Your task to perform on an android device: Clear the shopping cart on amazon. Search for usb-c on amazon, select the first entry, add it to the cart, then select checkout. Image 0: 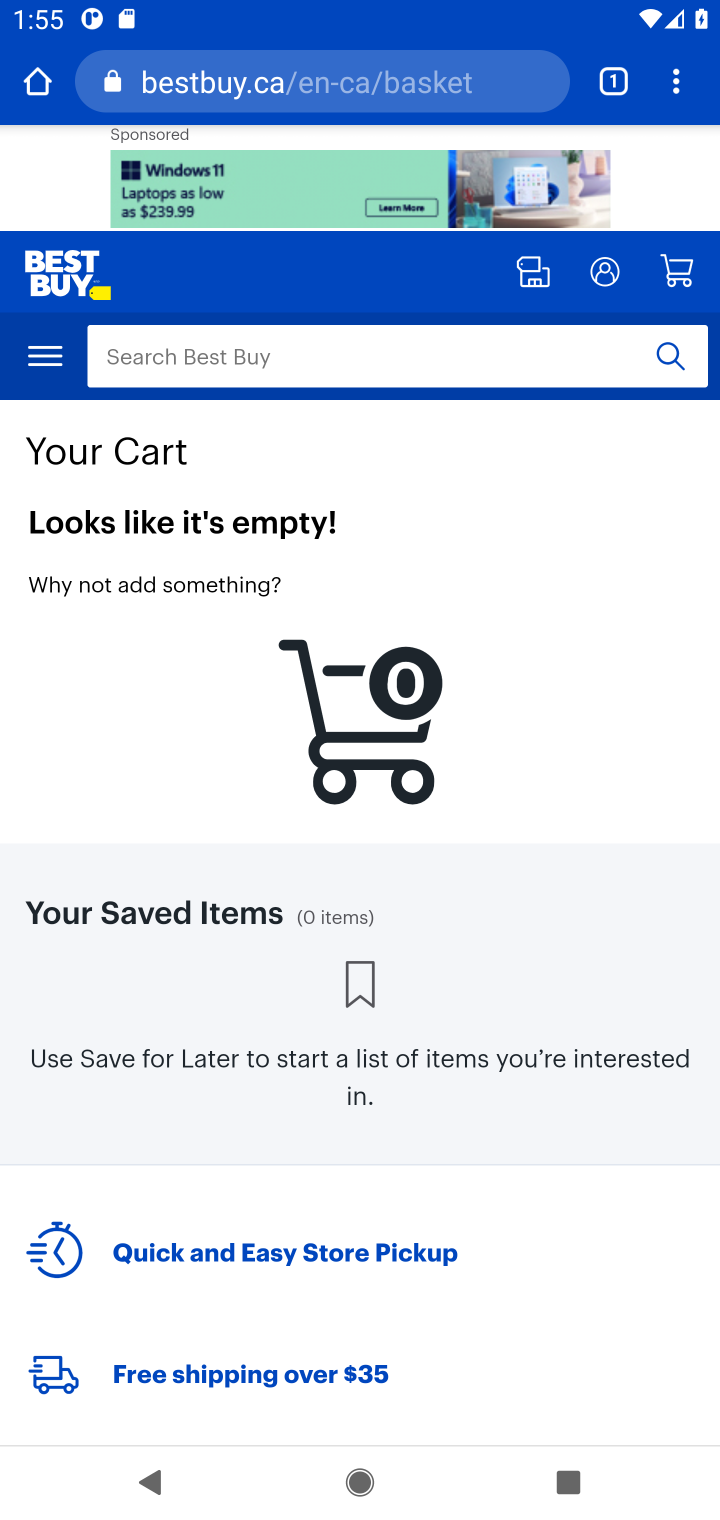
Step 0: press home button
Your task to perform on an android device: Clear the shopping cart on amazon. Search for usb-c on amazon, select the first entry, add it to the cart, then select checkout. Image 1: 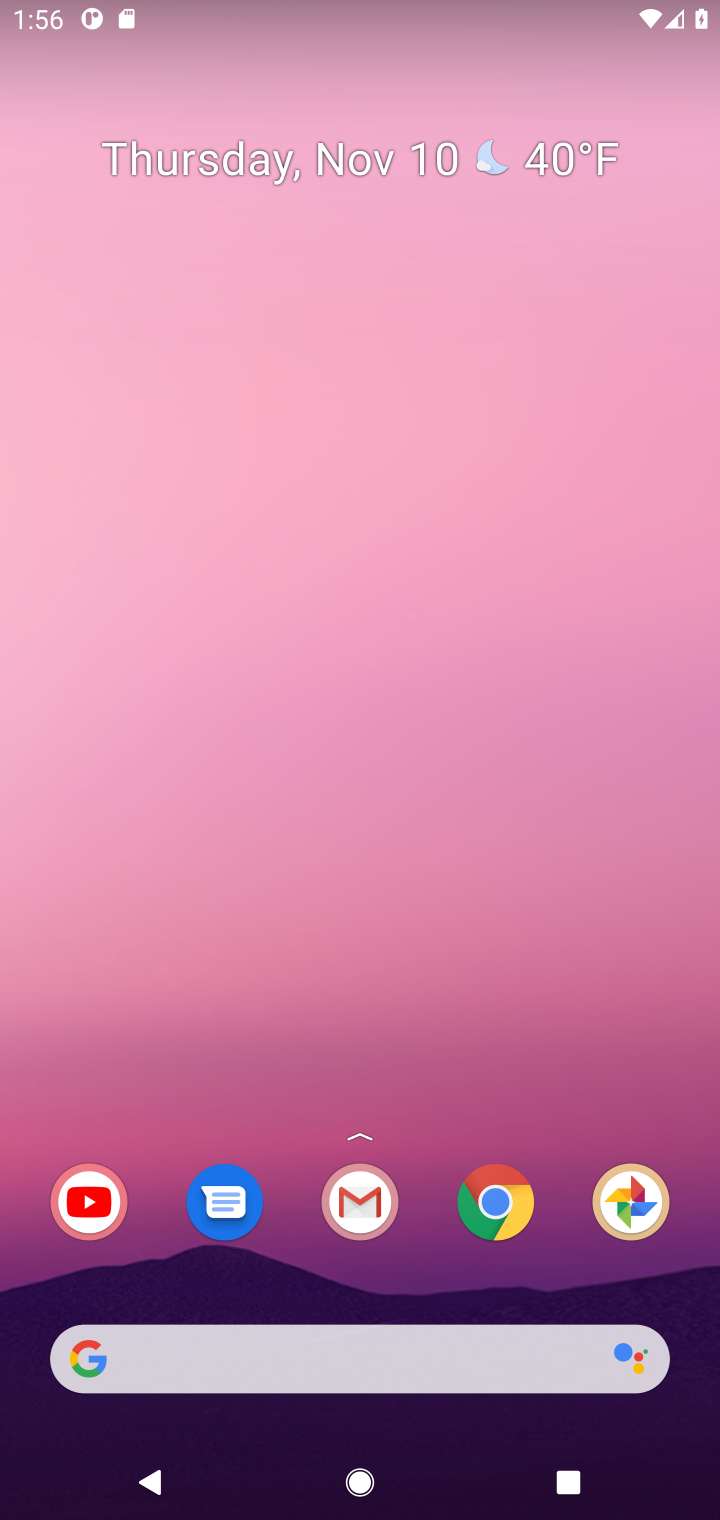
Step 1: click (504, 1210)
Your task to perform on an android device: Clear the shopping cart on amazon. Search for usb-c on amazon, select the first entry, add it to the cart, then select checkout. Image 2: 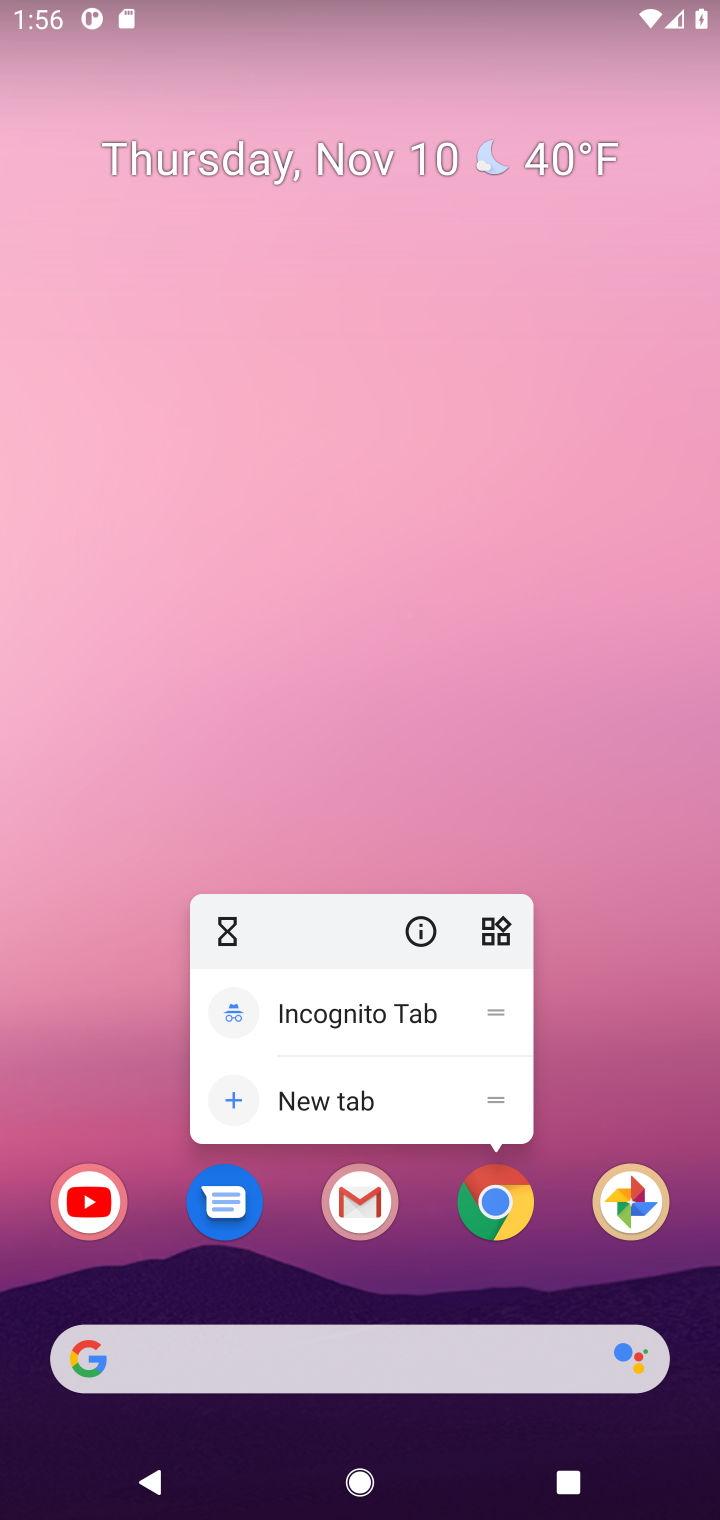
Step 2: click (486, 1202)
Your task to perform on an android device: Clear the shopping cart on amazon. Search for usb-c on amazon, select the first entry, add it to the cart, then select checkout. Image 3: 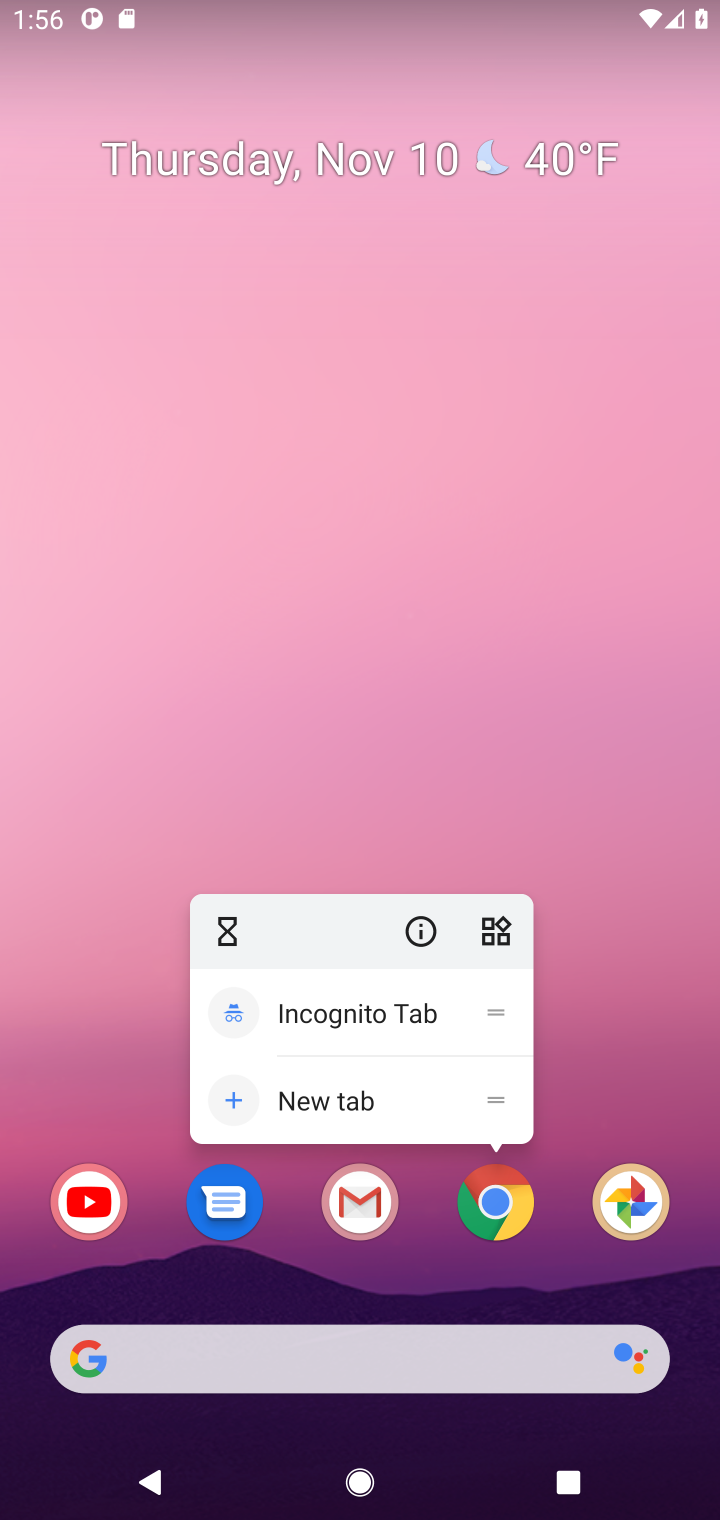
Step 3: click (497, 1202)
Your task to perform on an android device: Clear the shopping cart on amazon. Search for usb-c on amazon, select the first entry, add it to the cart, then select checkout. Image 4: 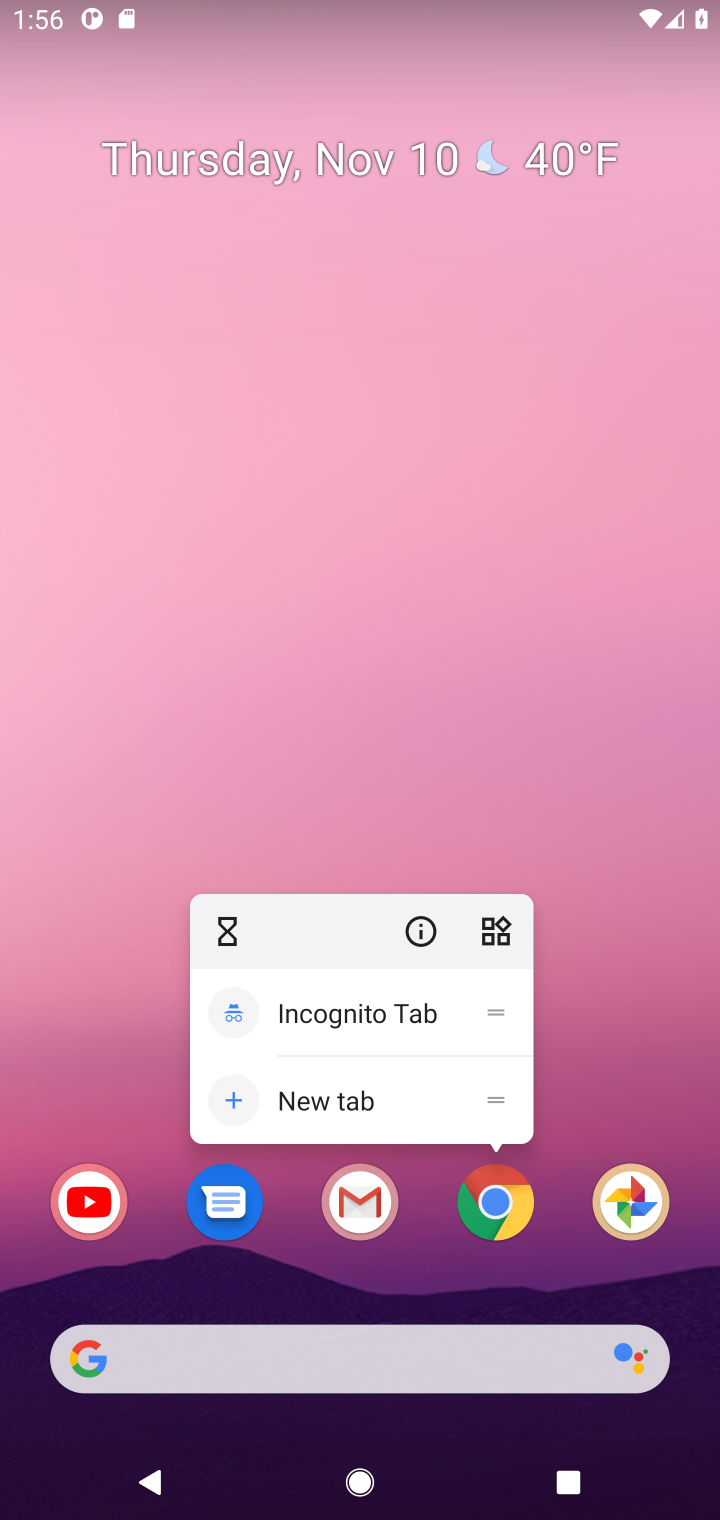
Step 4: click (497, 1199)
Your task to perform on an android device: Clear the shopping cart on amazon. Search for usb-c on amazon, select the first entry, add it to the cart, then select checkout. Image 5: 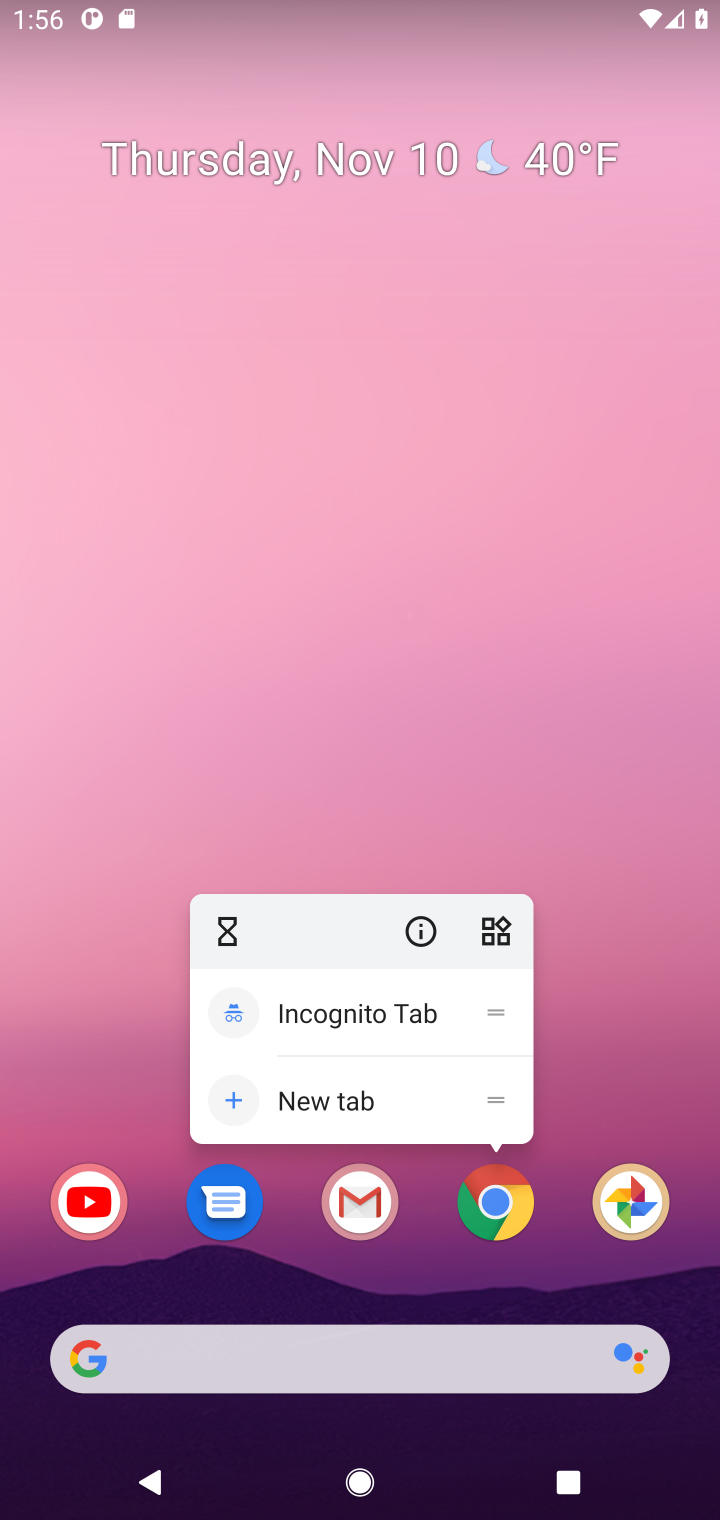
Step 5: click (497, 1197)
Your task to perform on an android device: Clear the shopping cart on amazon. Search for usb-c on amazon, select the first entry, add it to the cart, then select checkout. Image 6: 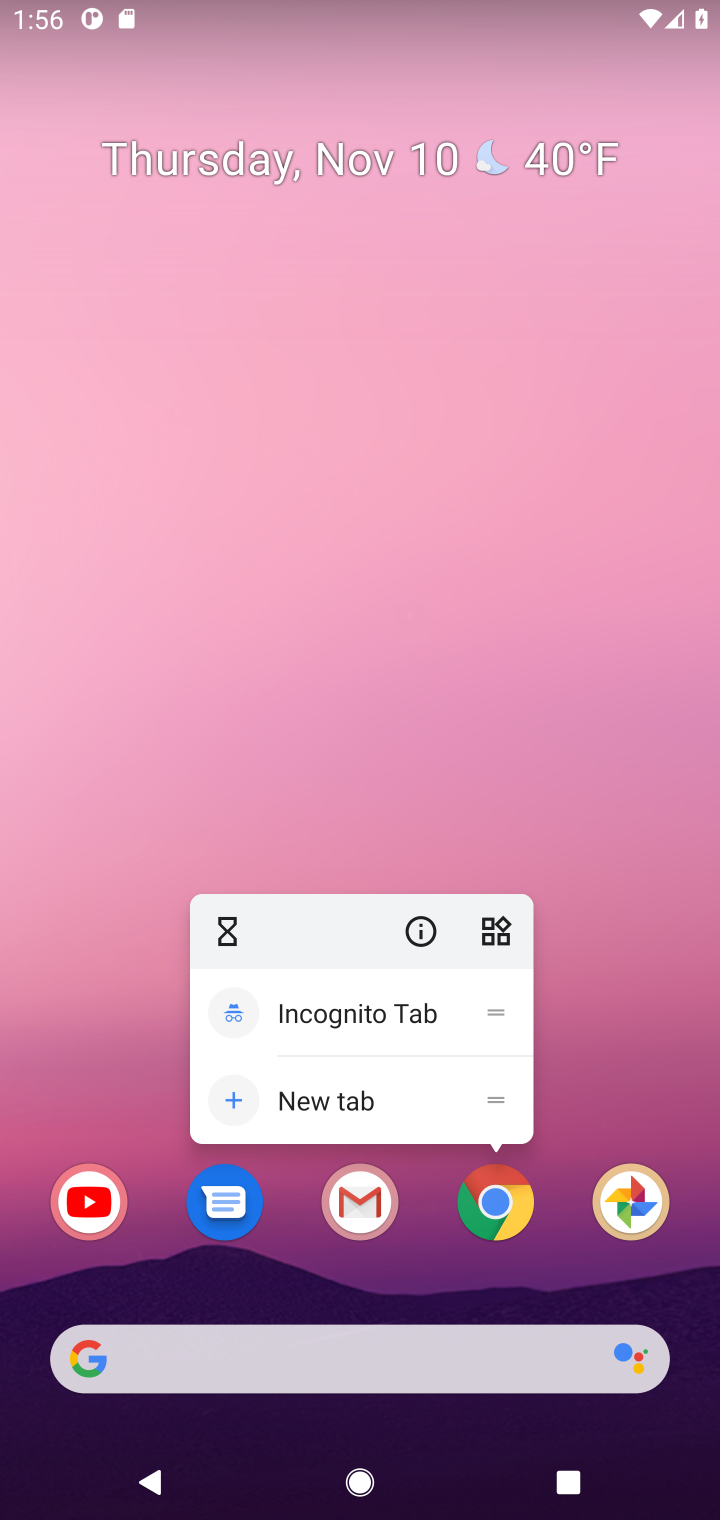
Step 6: click (497, 1197)
Your task to perform on an android device: Clear the shopping cart on amazon. Search for usb-c on amazon, select the first entry, add it to the cart, then select checkout. Image 7: 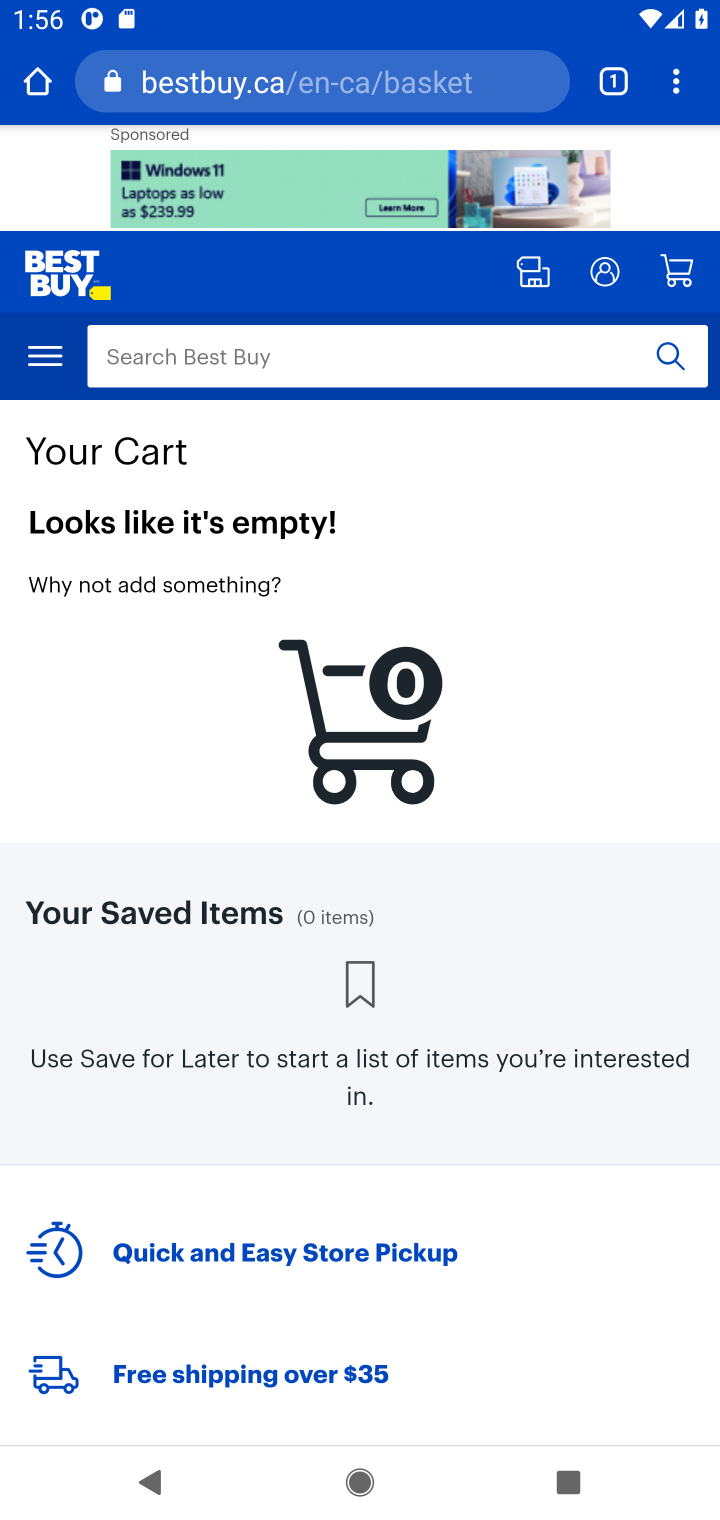
Step 7: click (390, 83)
Your task to perform on an android device: Clear the shopping cart on amazon. Search for usb-c on amazon, select the first entry, add it to the cart, then select checkout. Image 8: 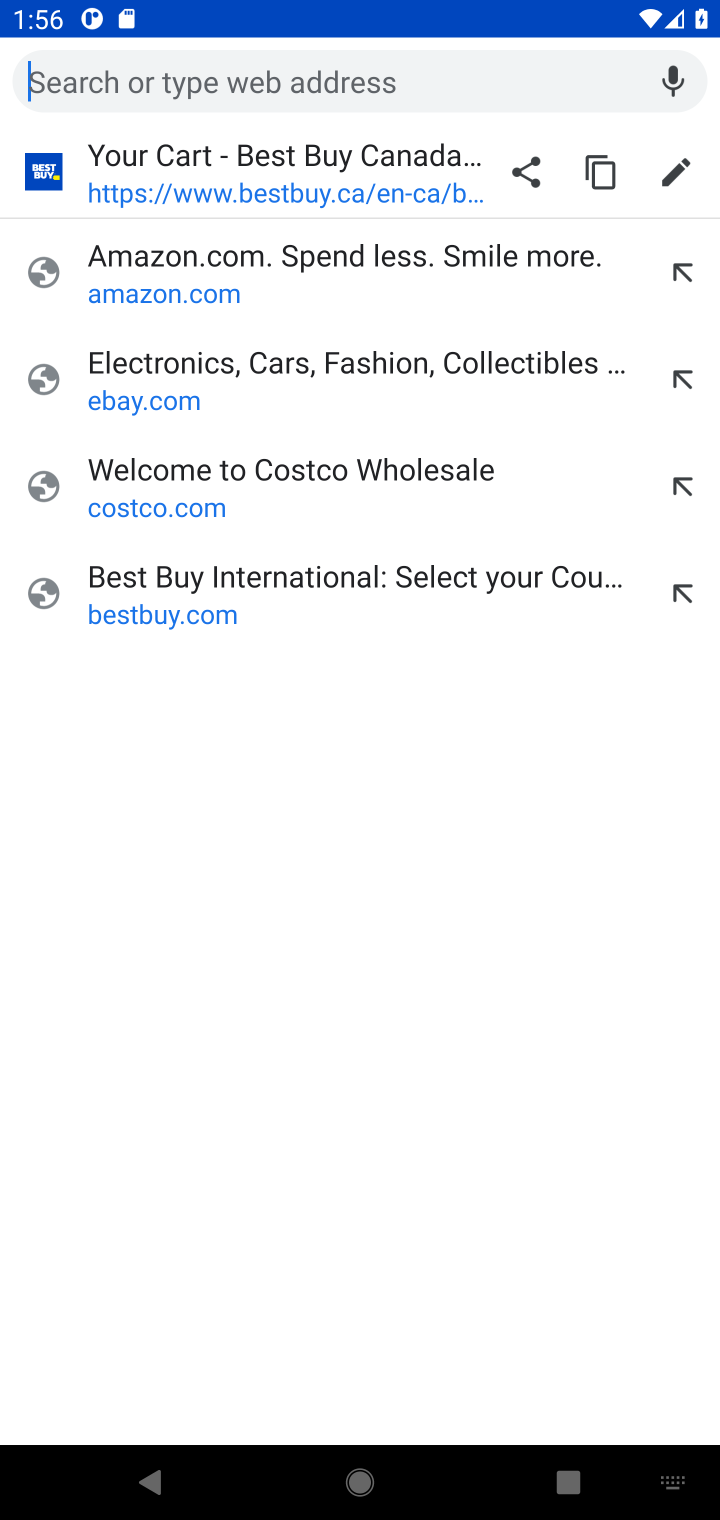
Step 8: click (130, 288)
Your task to perform on an android device: Clear the shopping cart on amazon. Search for usb-c on amazon, select the first entry, add it to the cart, then select checkout. Image 9: 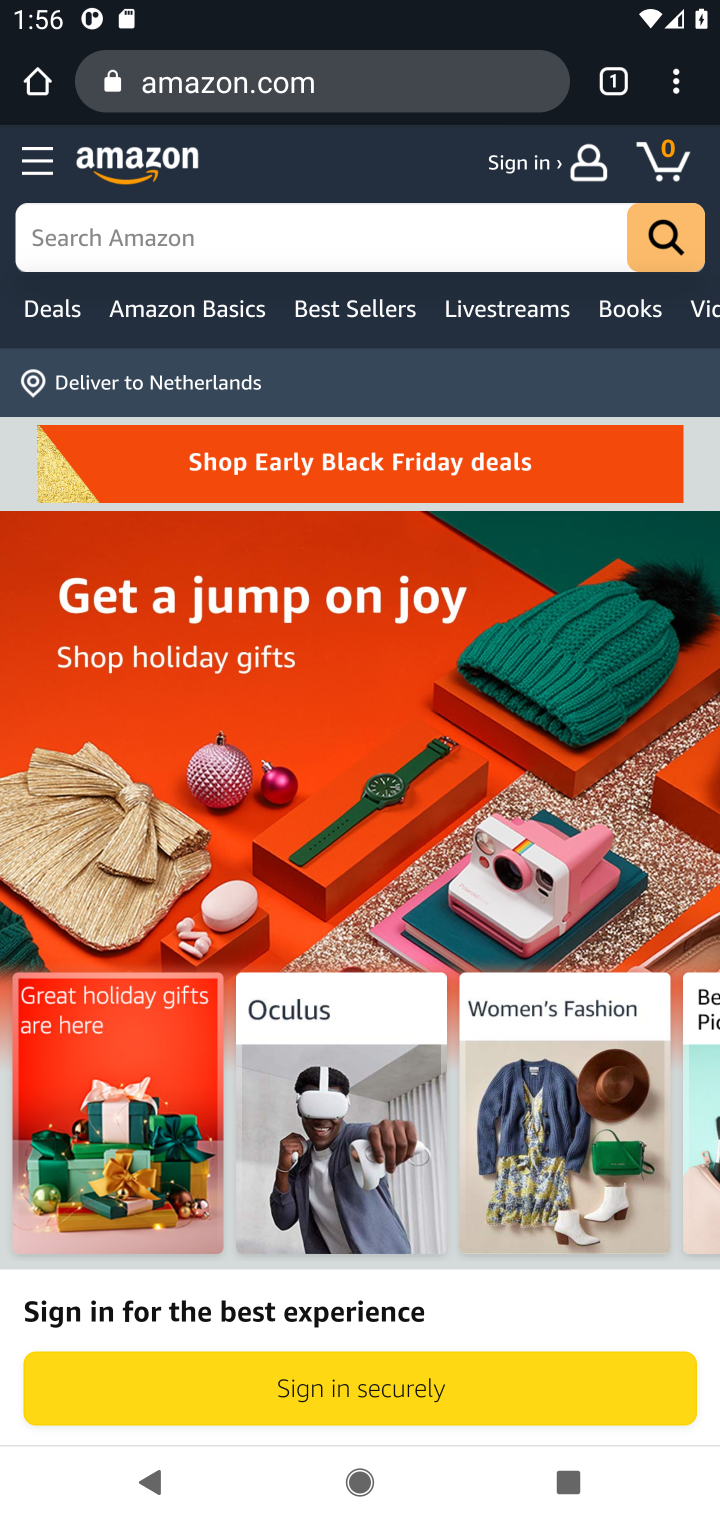
Step 9: click (219, 230)
Your task to perform on an android device: Clear the shopping cart on amazon. Search for usb-c on amazon, select the first entry, add it to the cart, then select checkout. Image 10: 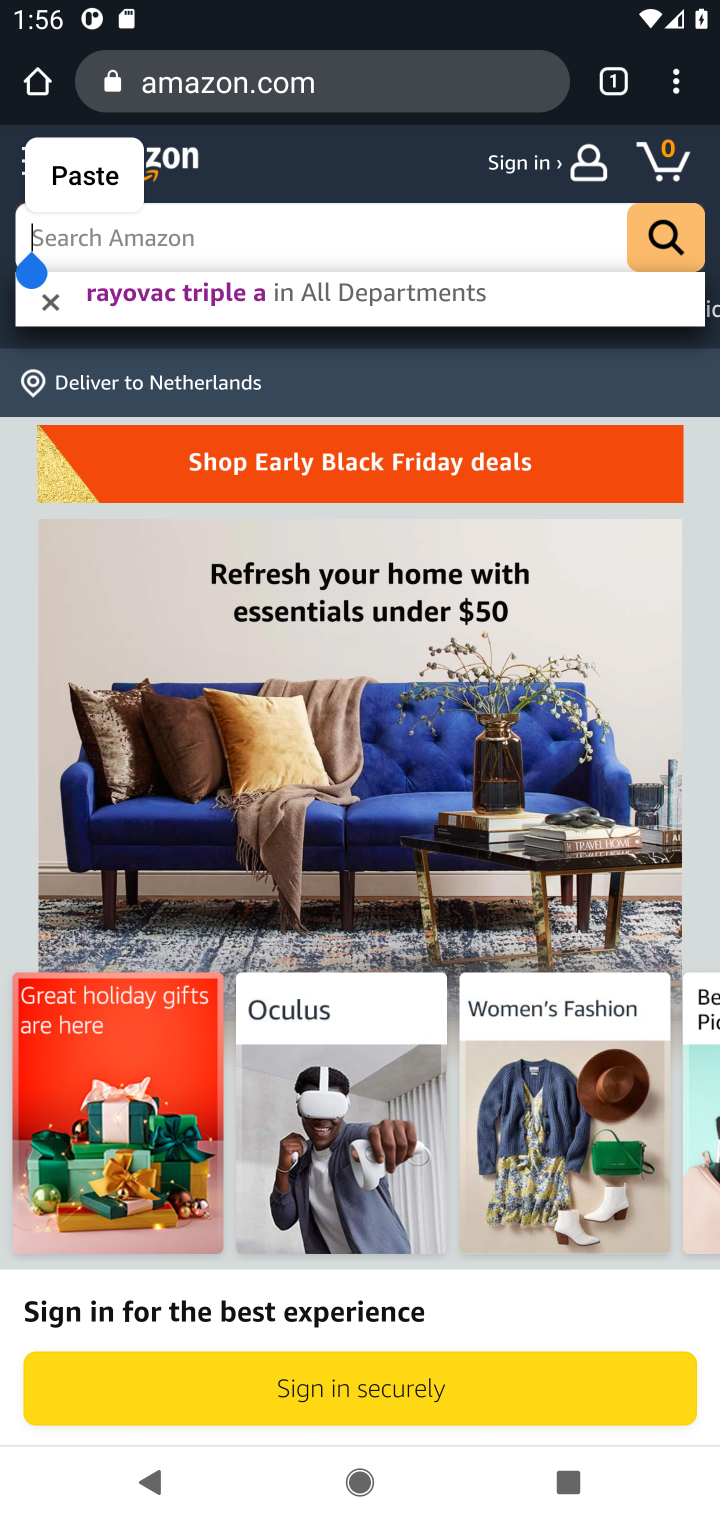
Step 10: click (168, 231)
Your task to perform on an android device: Clear the shopping cart on amazon. Search for usb-c on amazon, select the first entry, add it to the cart, then select checkout. Image 11: 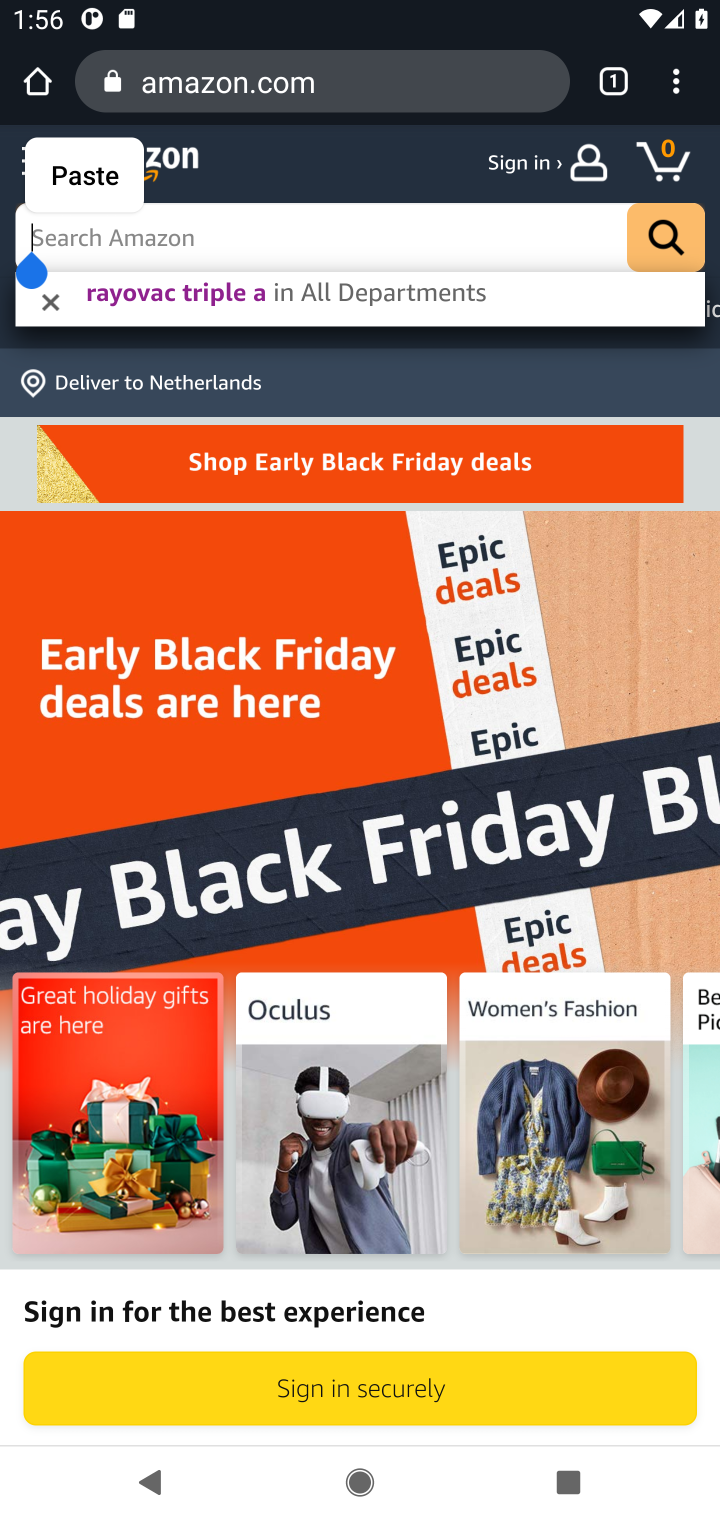
Step 11: press enter
Your task to perform on an android device: Clear the shopping cart on amazon. Search for usb-c on amazon, select the first entry, add it to the cart, then select checkout. Image 12: 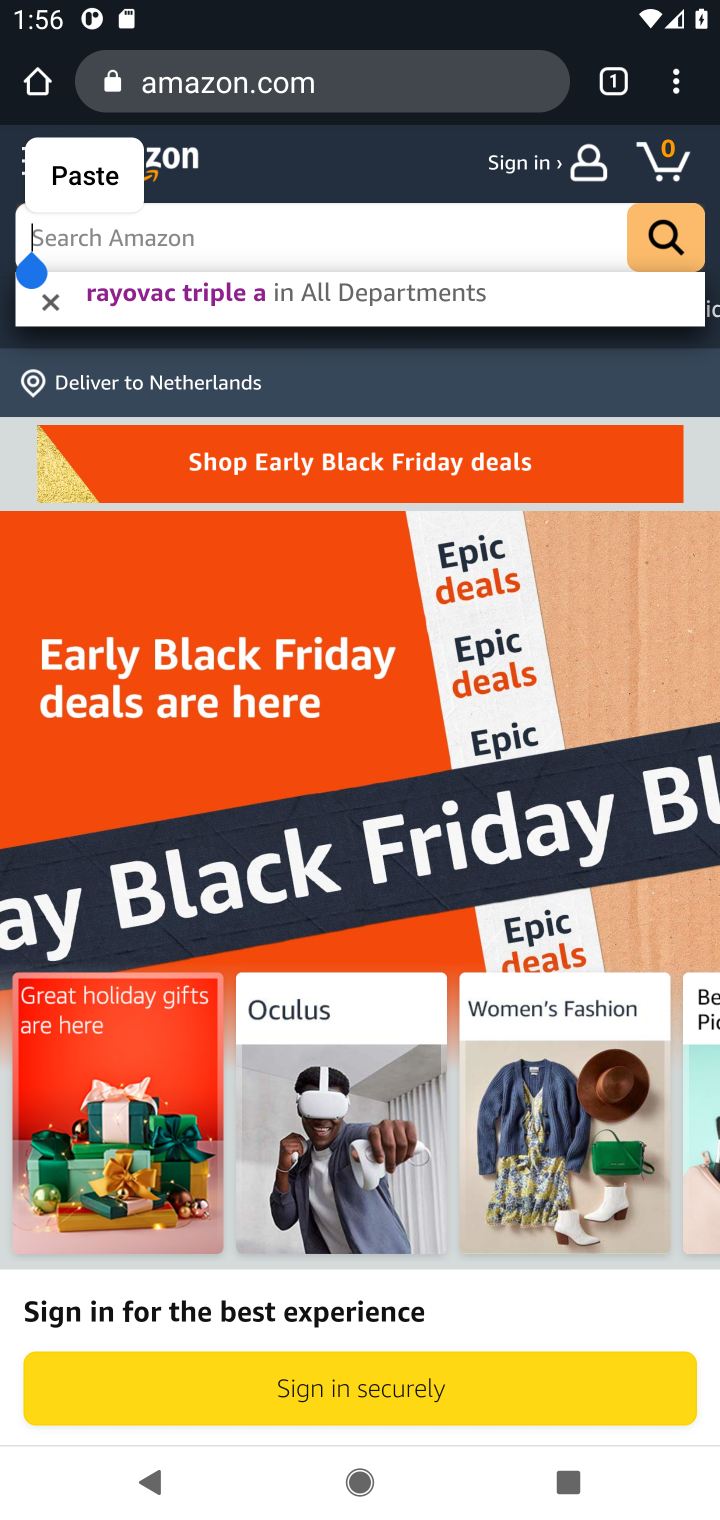
Step 12: type "usb-c"
Your task to perform on an android device: Clear the shopping cart on amazon. Search for usb-c on amazon, select the first entry, add it to the cart, then select checkout. Image 13: 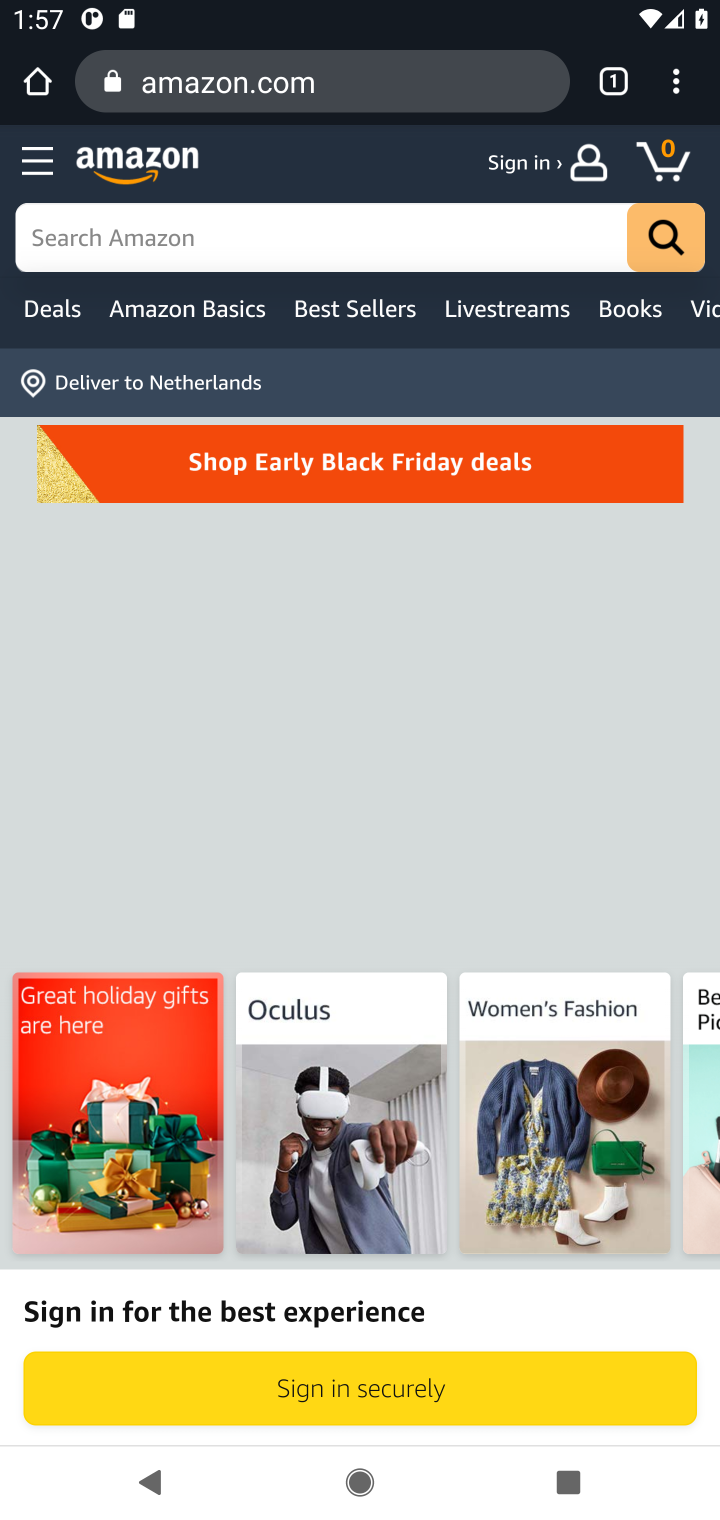
Step 13: click (127, 239)
Your task to perform on an android device: Clear the shopping cart on amazon. Search for usb-c on amazon, select the first entry, add it to the cart, then select checkout. Image 14: 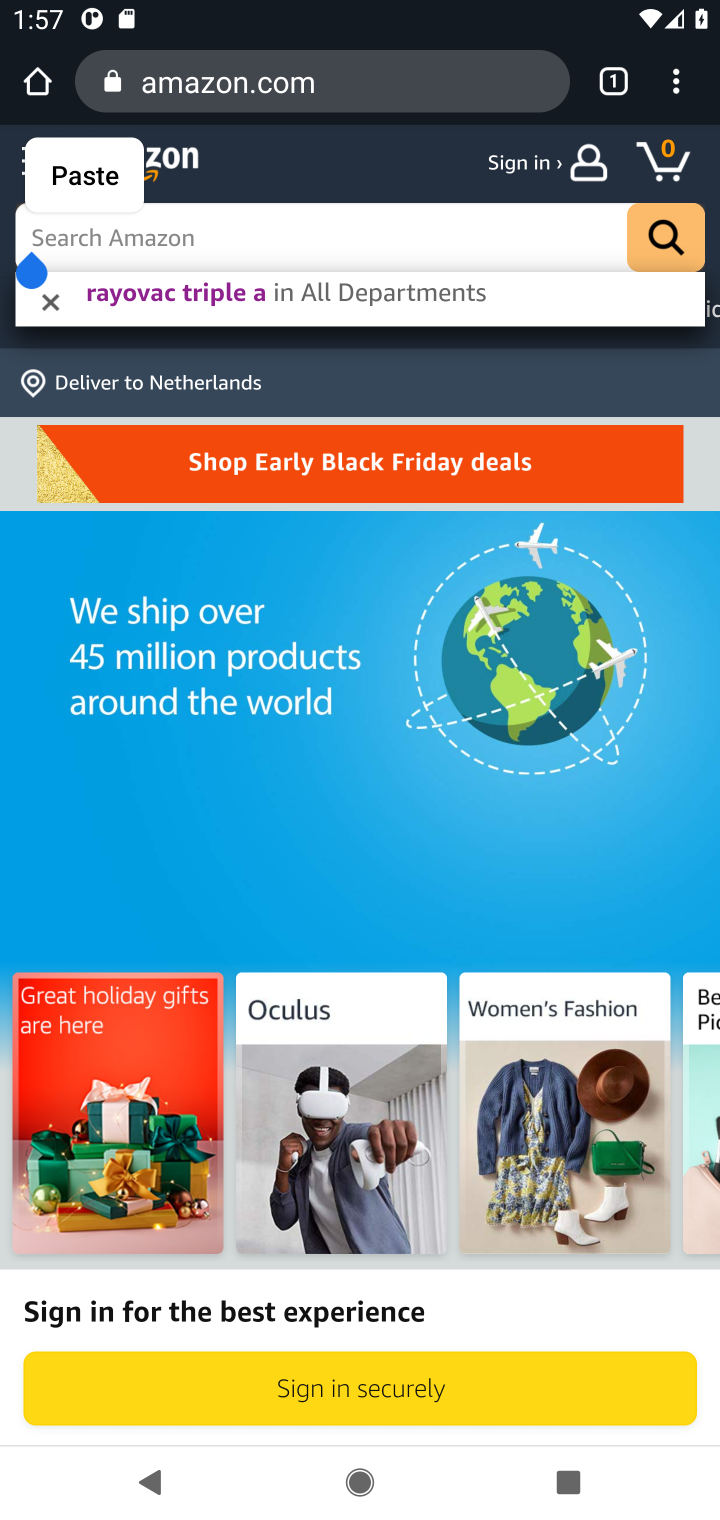
Step 14: type "usb-c"
Your task to perform on an android device: Clear the shopping cart on amazon. Search for usb-c on amazon, select the first entry, add it to the cart, then select checkout. Image 15: 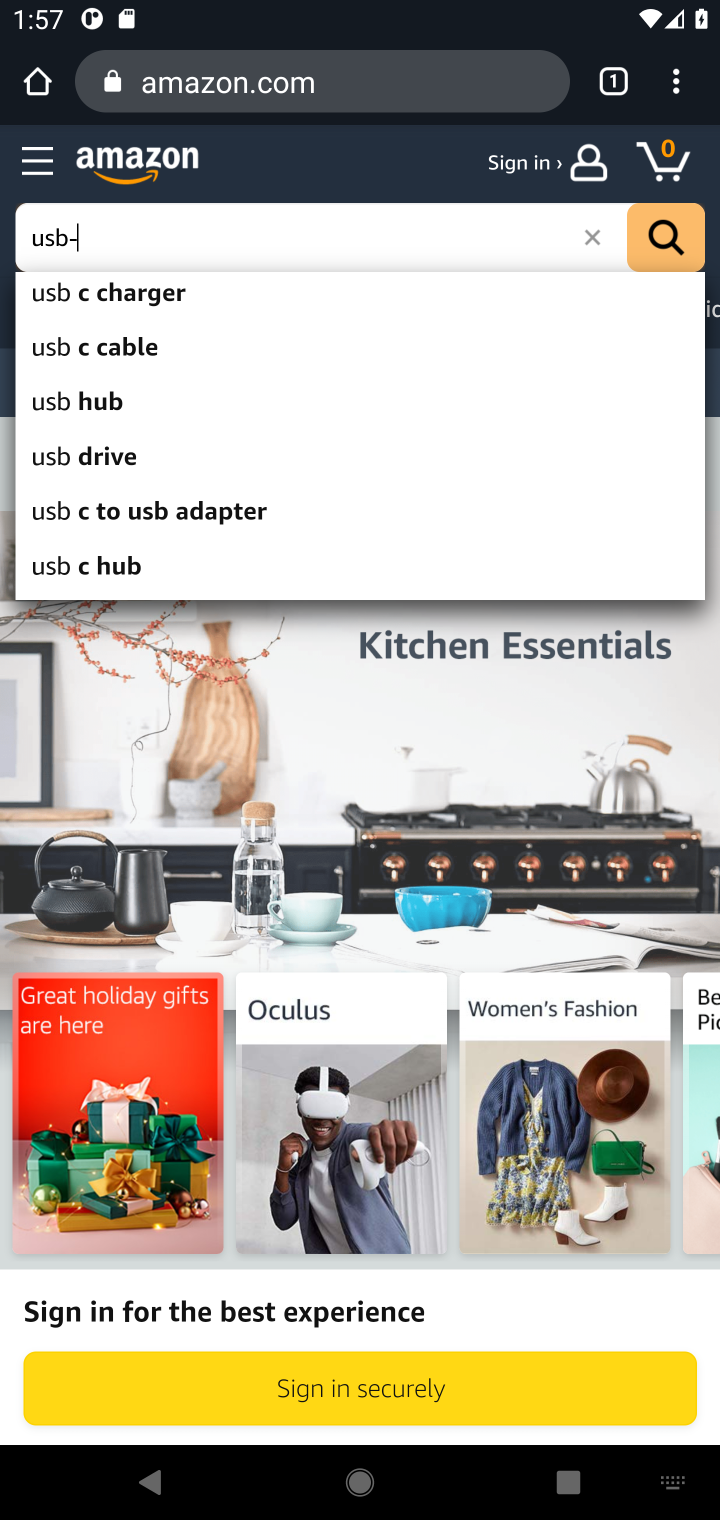
Step 15: press enter
Your task to perform on an android device: Clear the shopping cart on amazon. Search for usb-c on amazon, select the first entry, add it to the cart, then select checkout. Image 16: 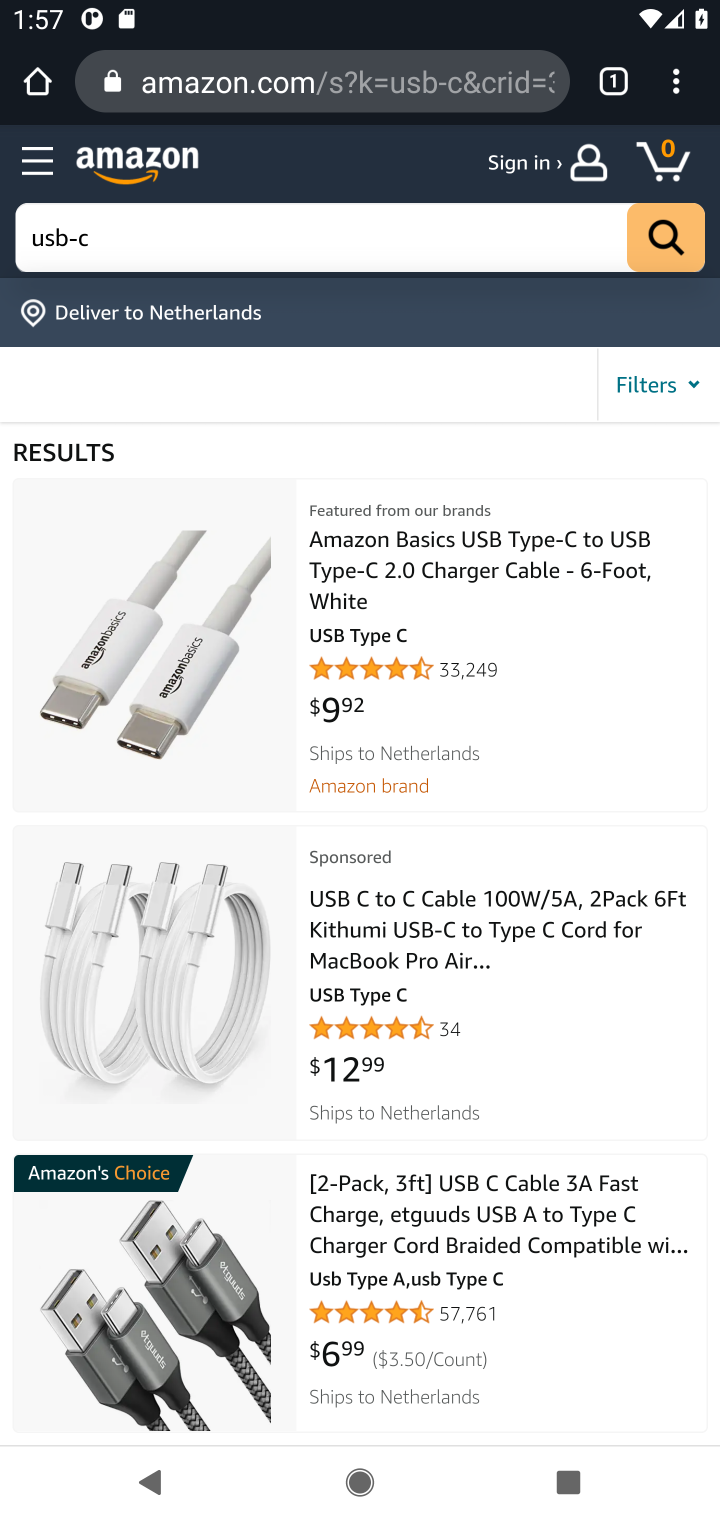
Step 16: click (421, 551)
Your task to perform on an android device: Clear the shopping cart on amazon. Search for usb-c on amazon, select the first entry, add it to the cart, then select checkout. Image 17: 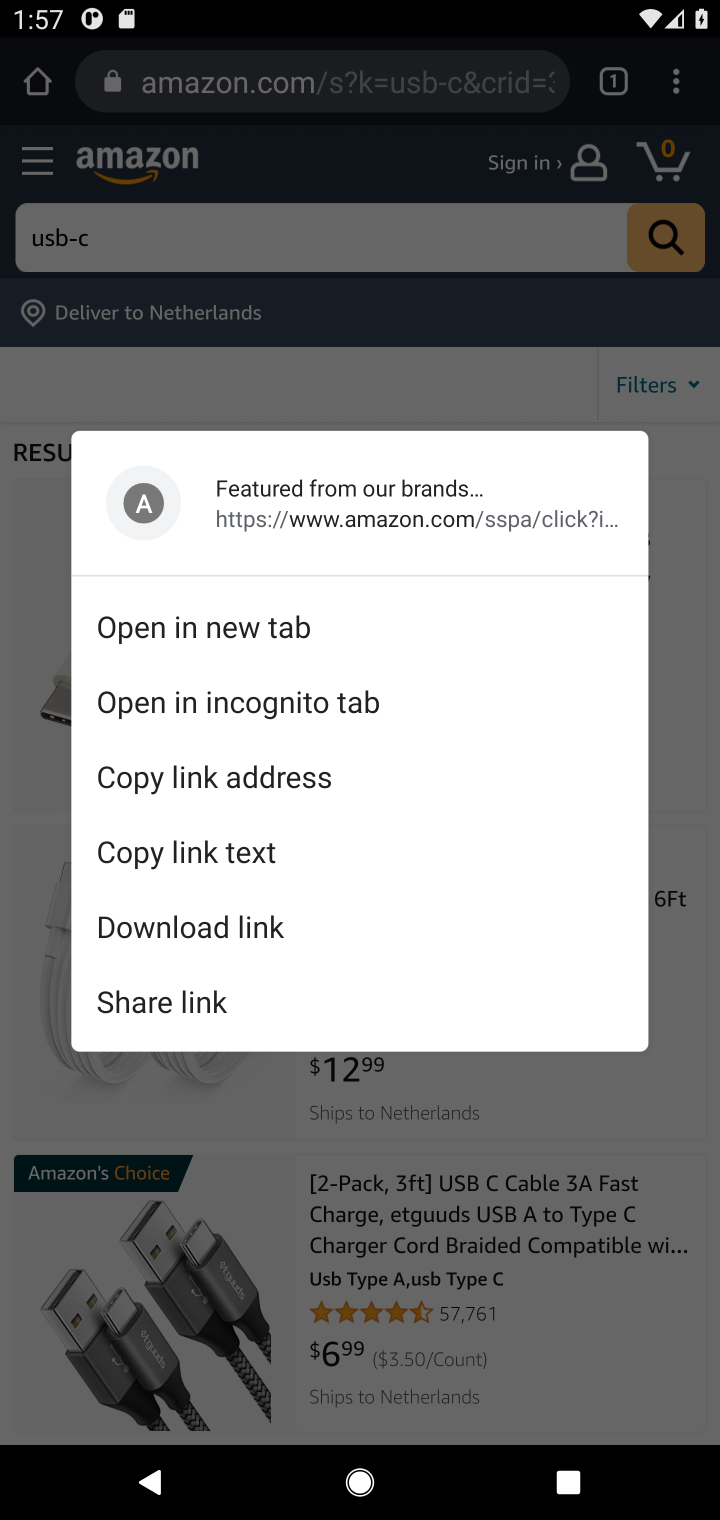
Step 17: click (695, 626)
Your task to perform on an android device: Clear the shopping cart on amazon. Search for usb-c on amazon, select the first entry, add it to the cart, then select checkout. Image 18: 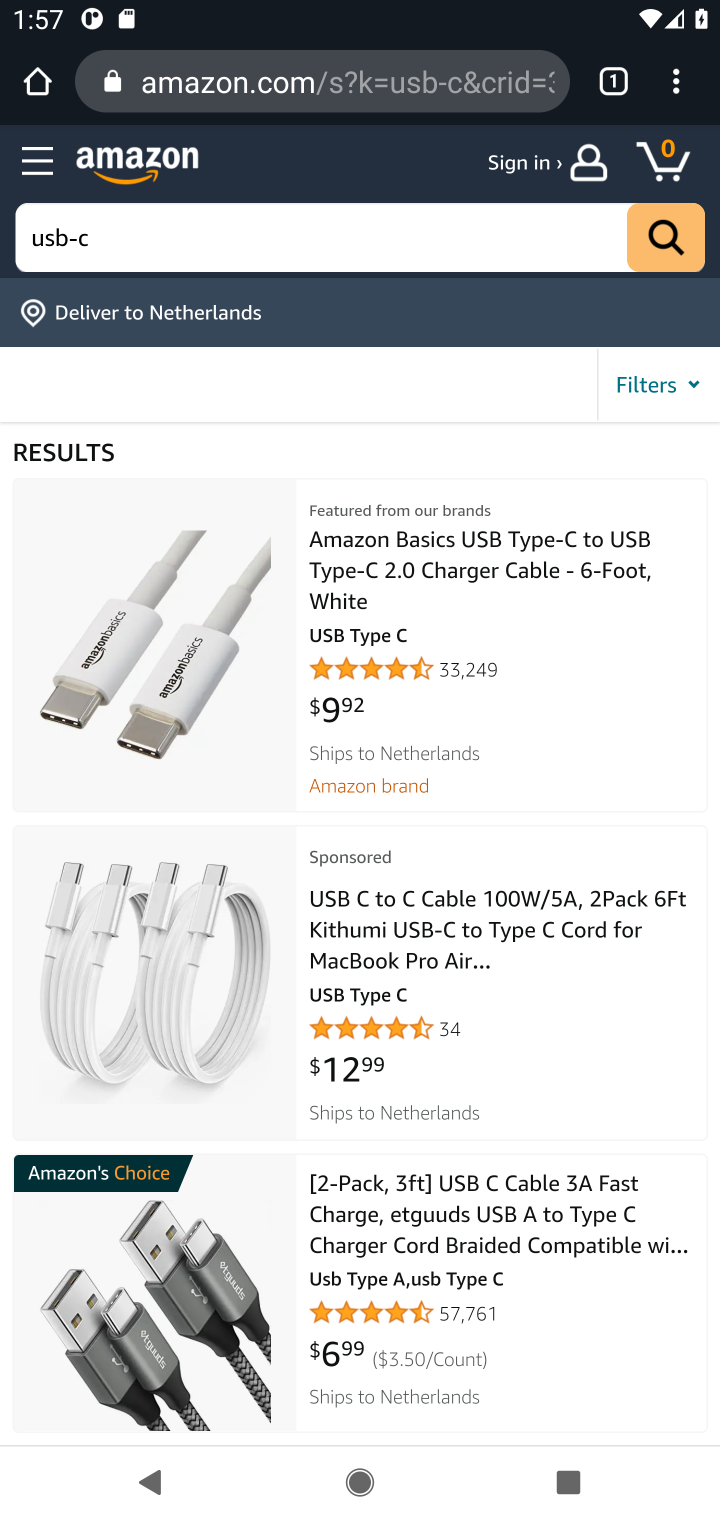
Step 18: click (411, 541)
Your task to perform on an android device: Clear the shopping cart on amazon. Search for usb-c on amazon, select the first entry, add it to the cart, then select checkout. Image 19: 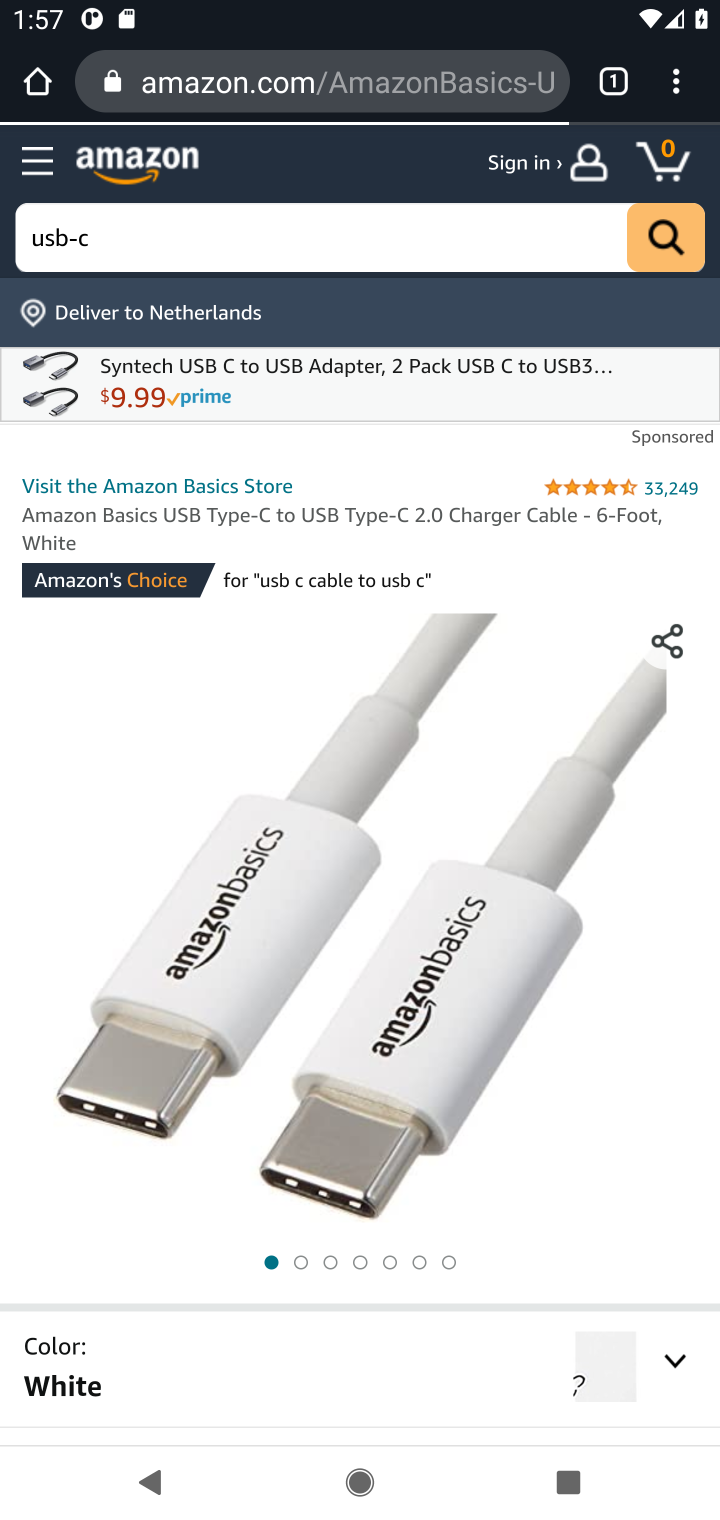
Step 19: drag from (295, 1158) to (604, 269)
Your task to perform on an android device: Clear the shopping cart on amazon. Search for usb-c on amazon, select the first entry, add it to the cart, then select checkout. Image 20: 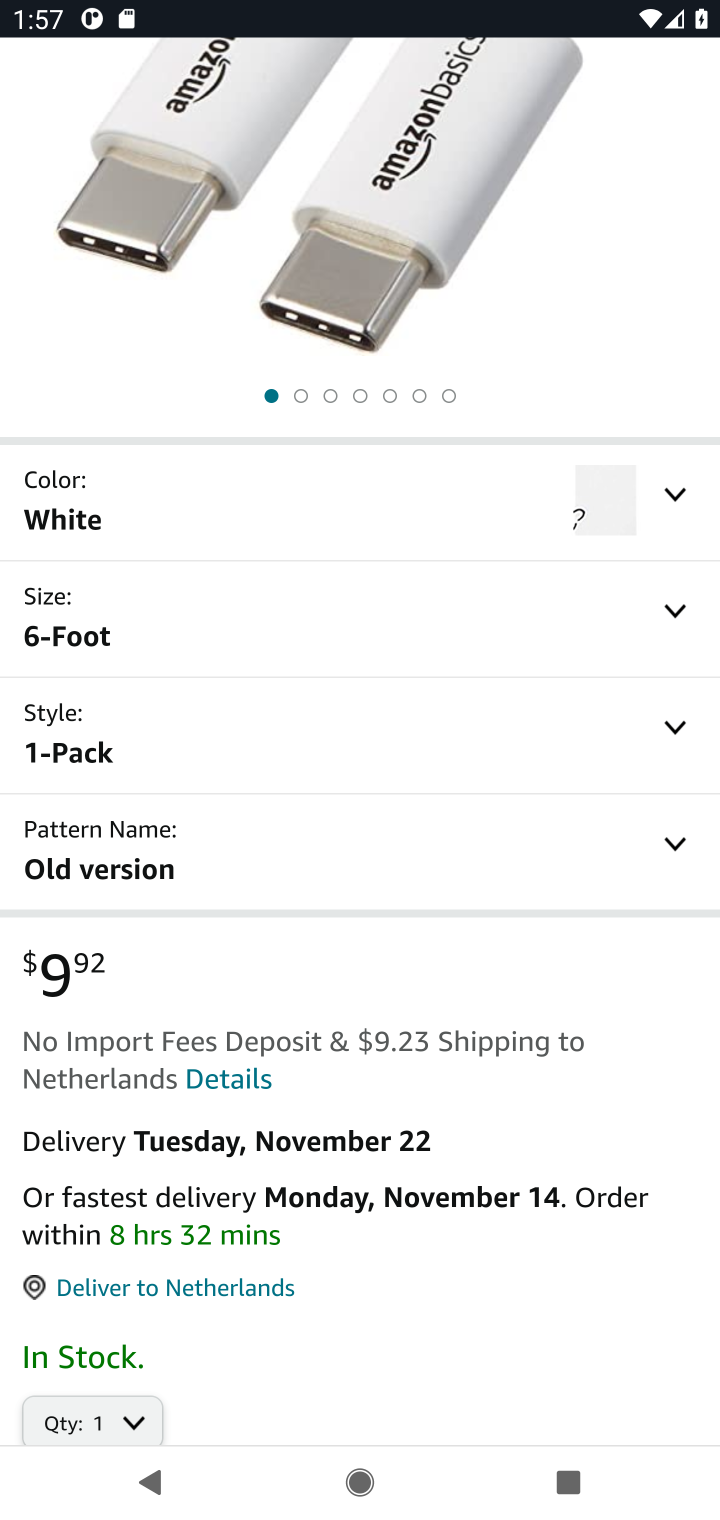
Step 20: drag from (361, 432) to (429, 297)
Your task to perform on an android device: Clear the shopping cart on amazon. Search for usb-c on amazon, select the first entry, add it to the cart, then select checkout. Image 21: 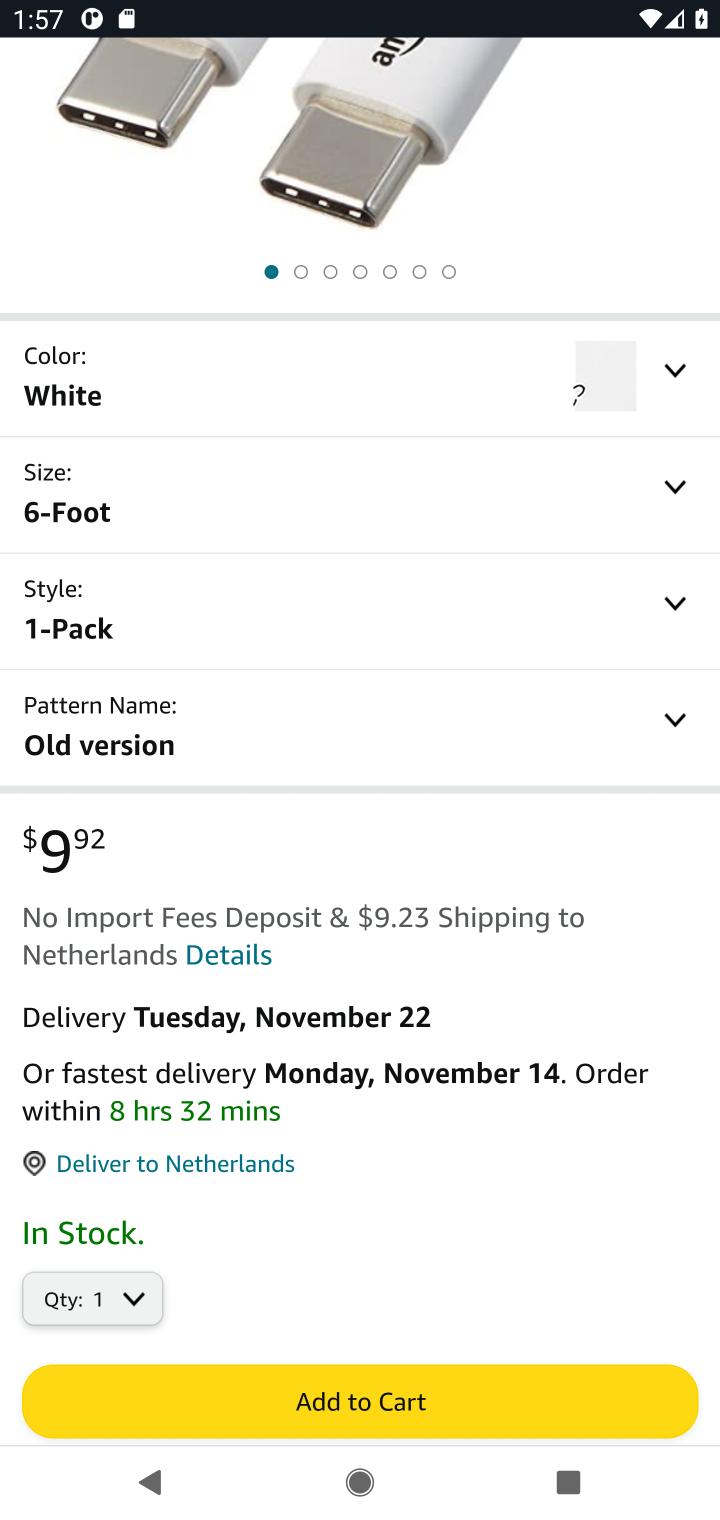
Step 21: click (377, 1400)
Your task to perform on an android device: Clear the shopping cart on amazon. Search for usb-c on amazon, select the first entry, add it to the cart, then select checkout. Image 22: 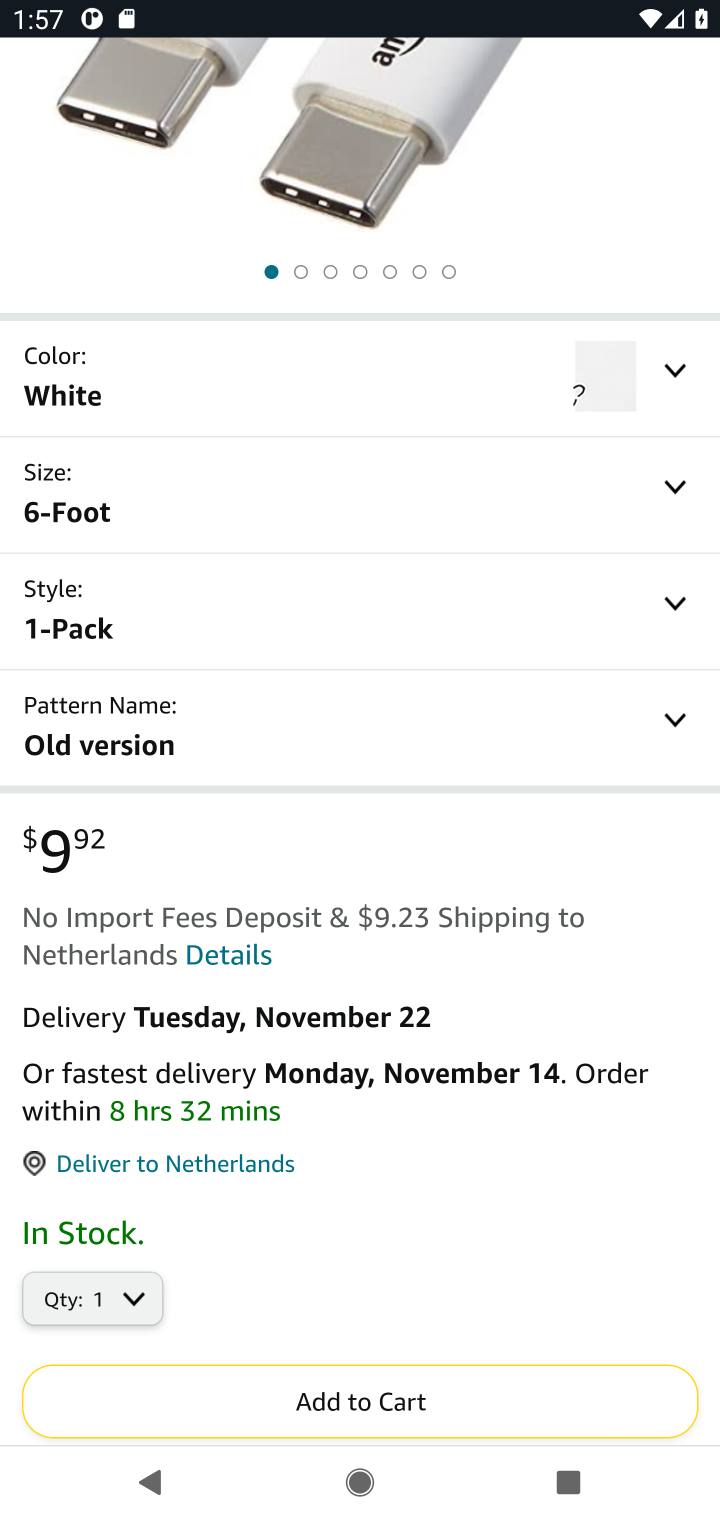
Step 22: click (397, 1384)
Your task to perform on an android device: Clear the shopping cart on amazon. Search for usb-c on amazon, select the first entry, add it to the cart, then select checkout. Image 23: 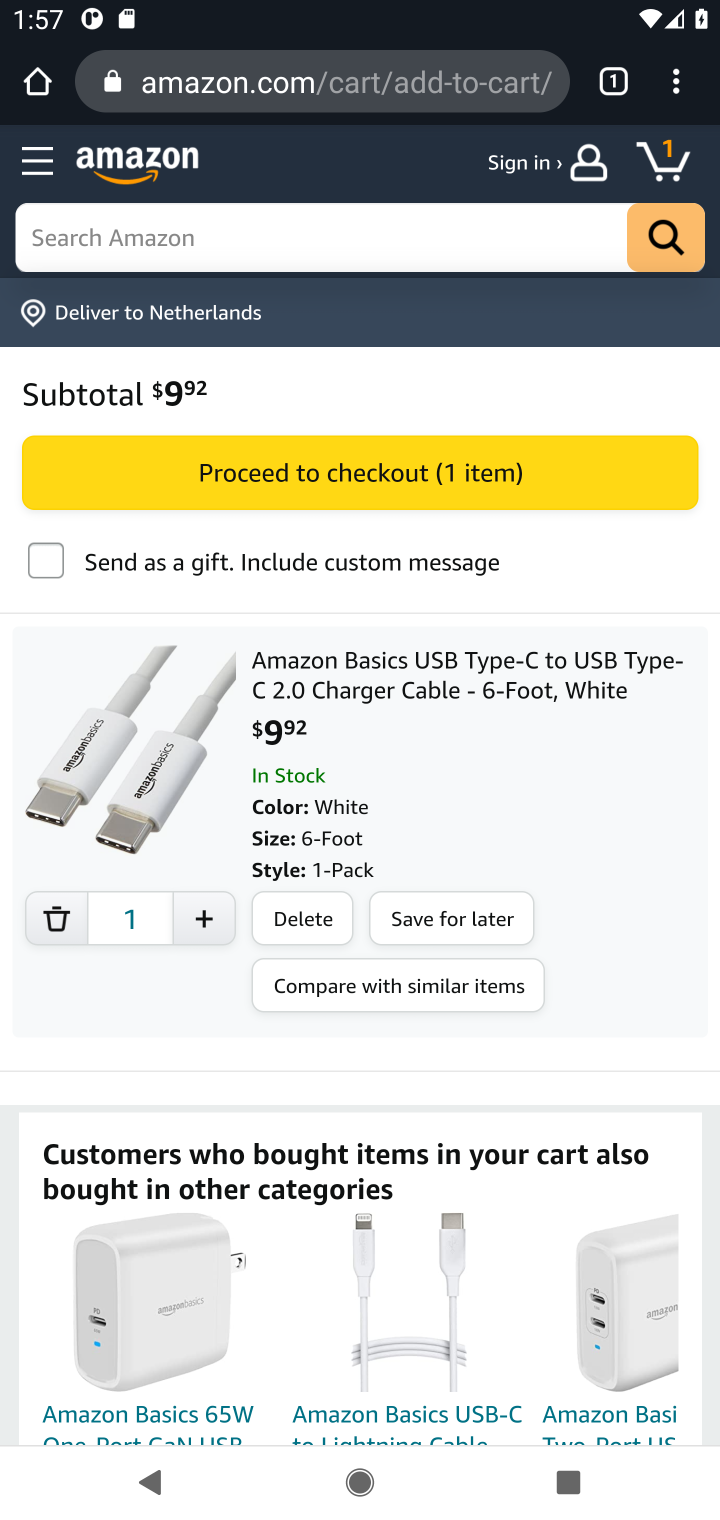
Step 23: click (353, 467)
Your task to perform on an android device: Clear the shopping cart on amazon. Search for usb-c on amazon, select the first entry, add it to the cart, then select checkout. Image 24: 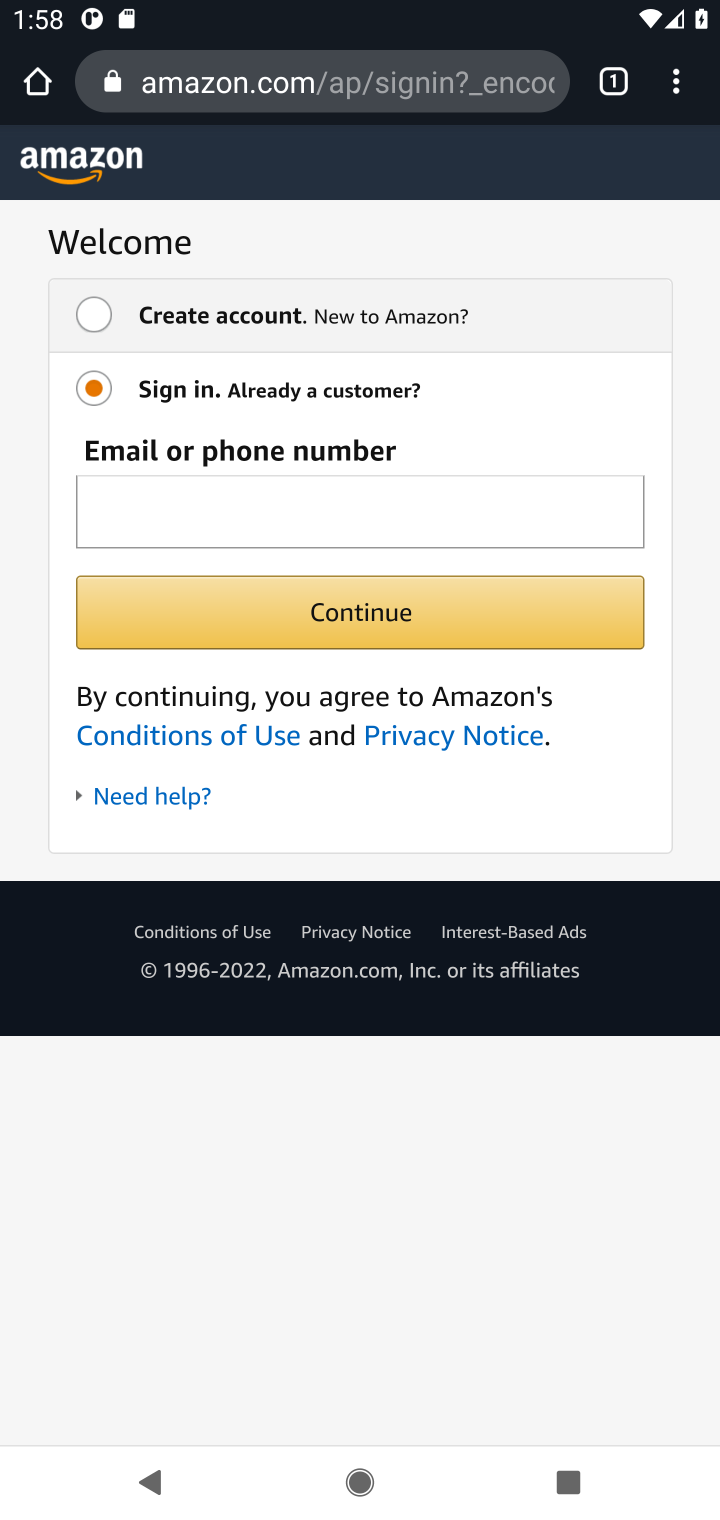
Step 24: task complete